Your task to perform on an android device: turn on improve location accuracy Image 0: 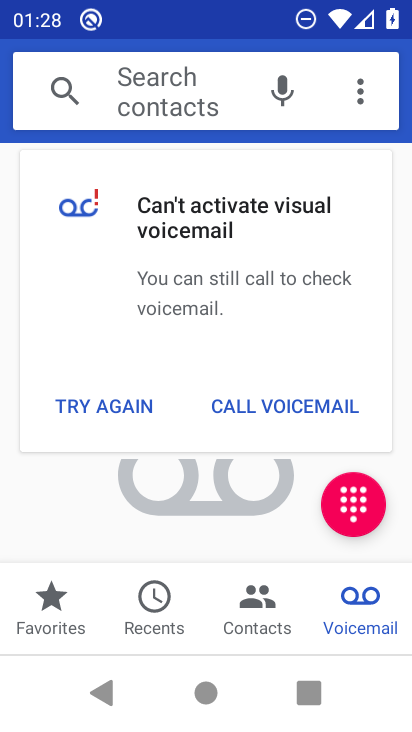
Step 0: press home button
Your task to perform on an android device: turn on improve location accuracy Image 1: 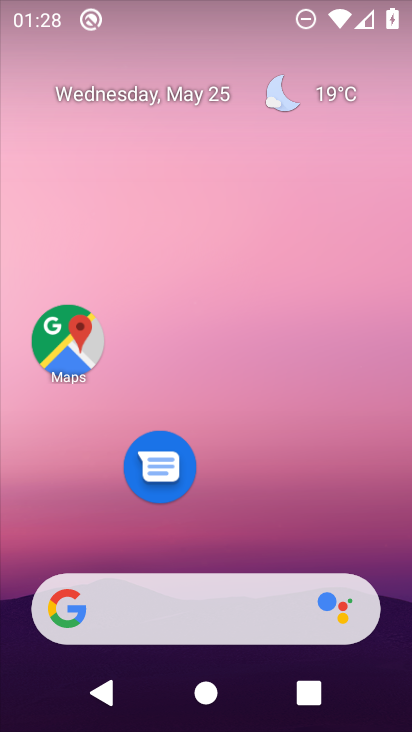
Step 1: drag from (206, 546) to (314, 132)
Your task to perform on an android device: turn on improve location accuracy Image 2: 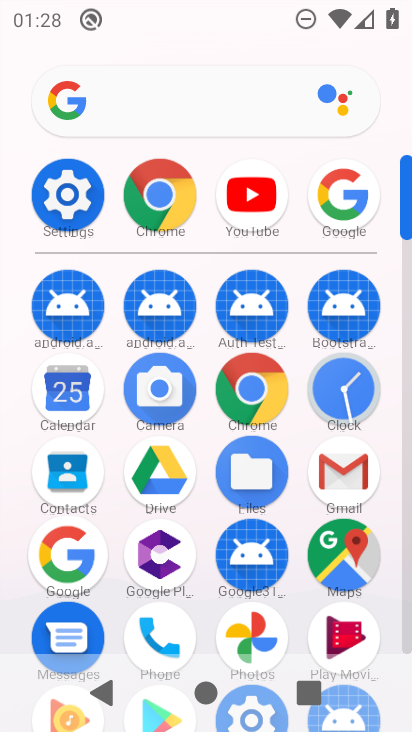
Step 2: click (63, 204)
Your task to perform on an android device: turn on improve location accuracy Image 3: 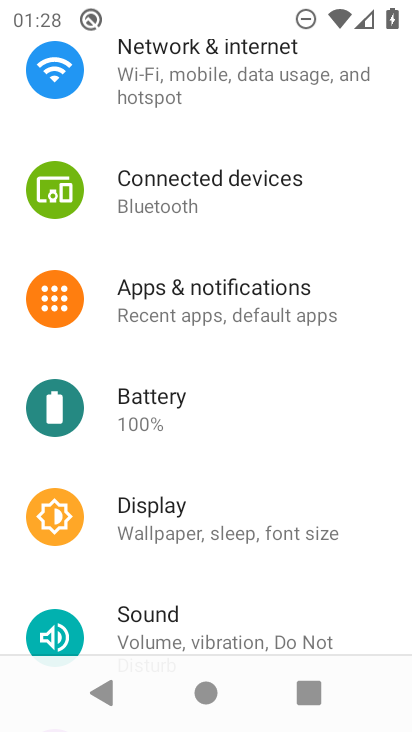
Step 3: drag from (207, 551) to (290, 67)
Your task to perform on an android device: turn on improve location accuracy Image 4: 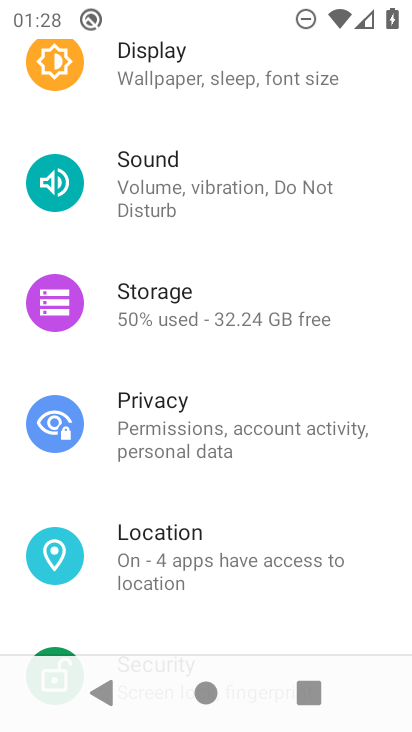
Step 4: drag from (185, 541) to (243, 231)
Your task to perform on an android device: turn on improve location accuracy Image 5: 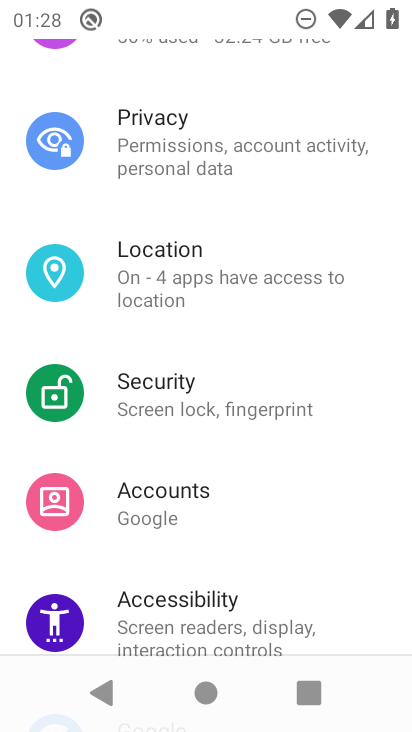
Step 5: click (201, 285)
Your task to perform on an android device: turn on improve location accuracy Image 6: 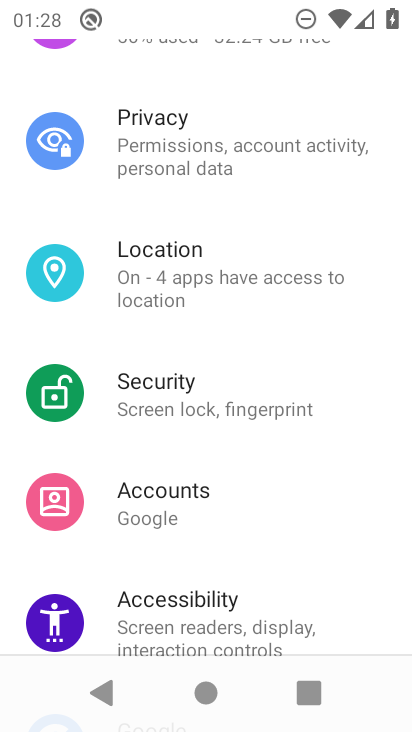
Step 6: click (201, 285)
Your task to perform on an android device: turn on improve location accuracy Image 7: 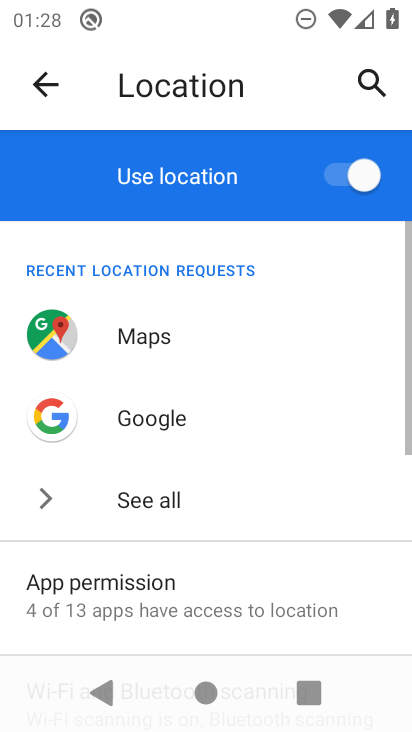
Step 7: drag from (202, 573) to (303, 153)
Your task to perform on an android device: turn on improve location accuracy Image 8: 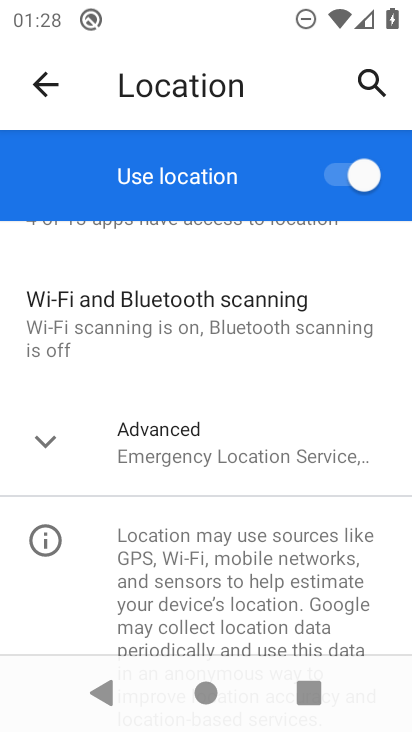
Step 8: click (175, 470)
Your task to perform on an android device: turn on improve location accuracy Image 9: 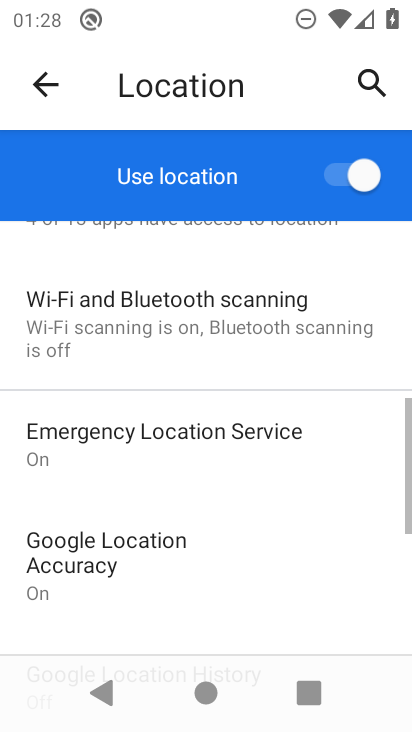
Step 9: drag from (208, 618) to (264, 310)
Your task to perform on an android device: turn on improve location accuracy Image 10: 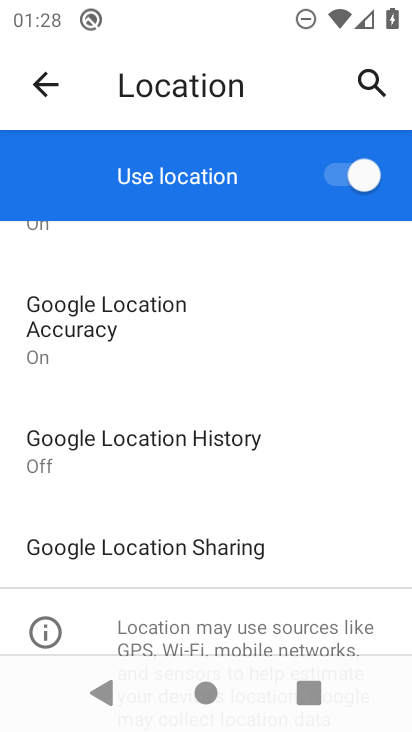
Step 10: click (134, 350)
Your task to perform on an android device: turn on improve location accuracy Image 11: 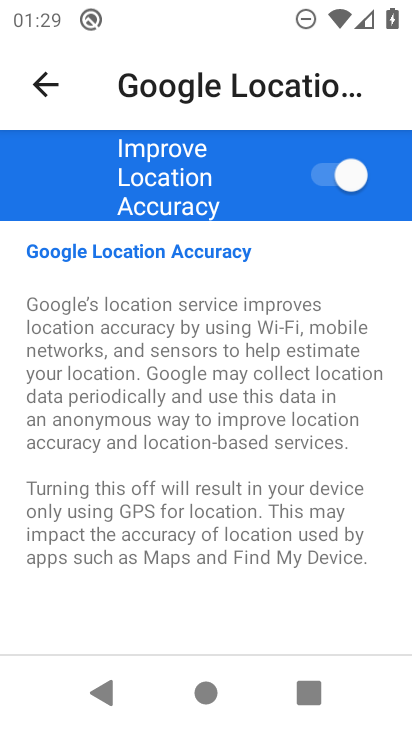
Step 11: task complete